Your task to perform on an android device: snooze an email in the gmail app Image 0: 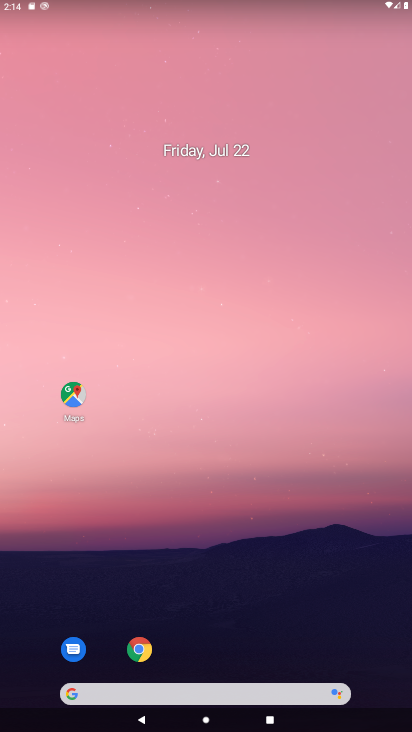
Step 0: drag from (235, 726) to (219, 127)
Your task to perform on an android device: snooze an email in the gmail app Image 1: 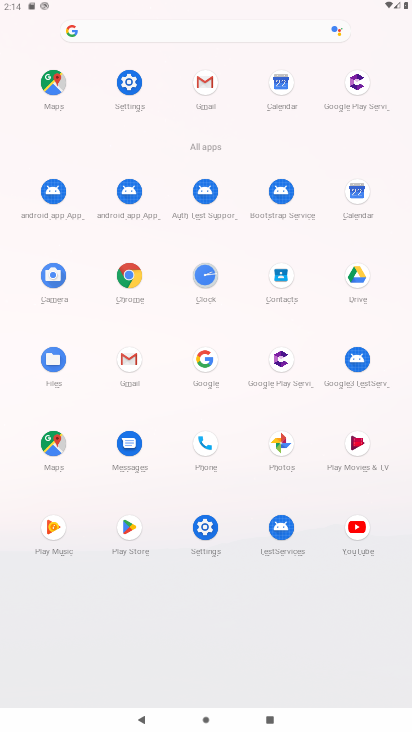
Step 1: click (128, 365)
Your task to perform on an android device: snooze an email in the gmail app Image 2: 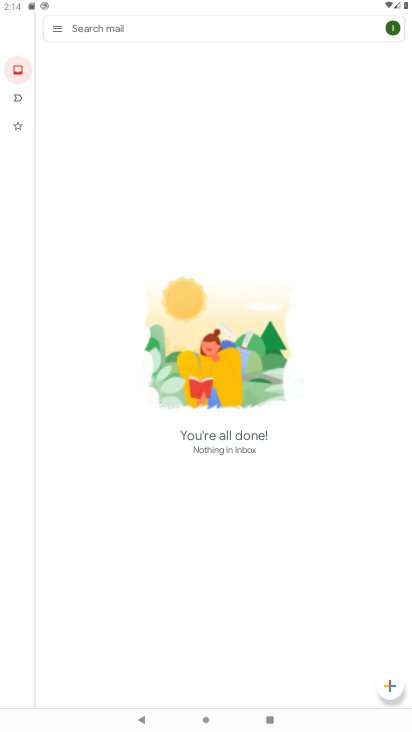
Step 2: click (58, 28)
Your task to perform on an android device: snooze an email in the gmail app Image 3: 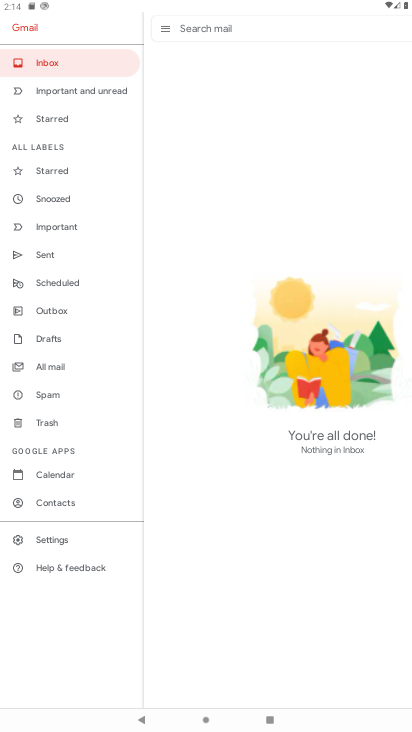
Step 3: click (46, 60)
Your task to perform on an android device: snooze an email in the gmail app Image 4: 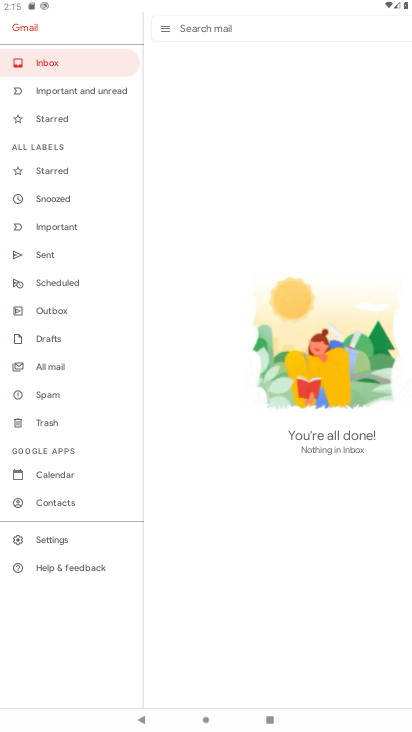
Step 4: task complete